Your task to perform on an android device: Open the map Image 0: 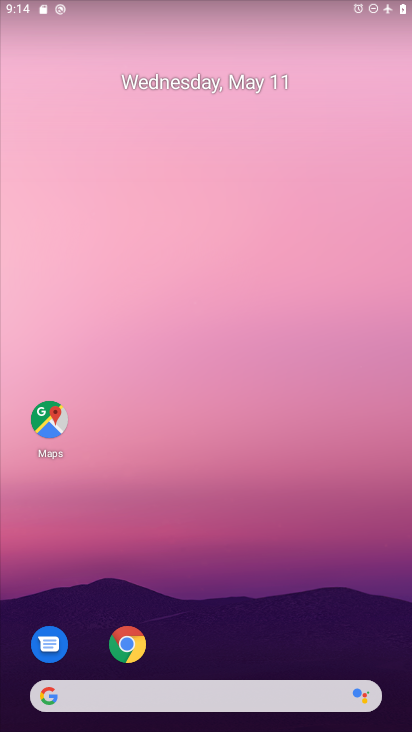
Step 0: click (50, 430)
Your task to perform on an android device: Open the map Image 1: 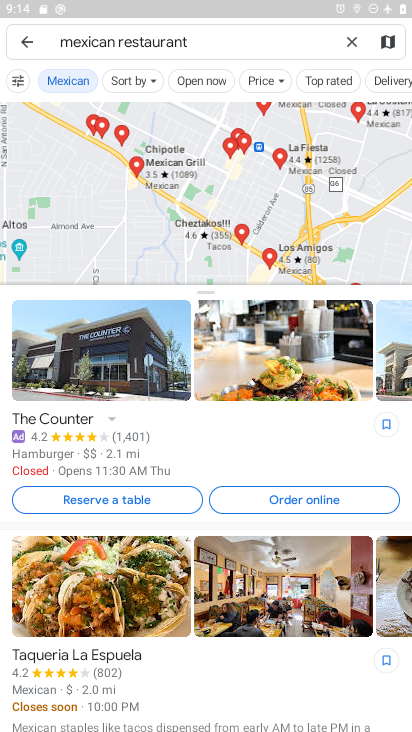
Step 1: task complete